Your task to perform on an android device: Turn off the flashlight Image 0: 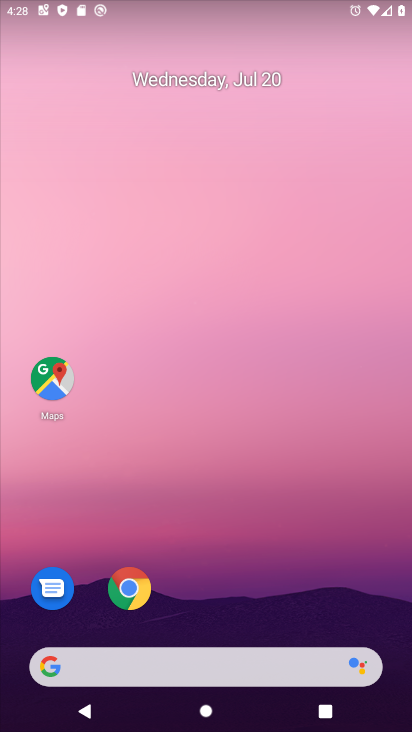
Step 0: drag from (266, 586) to (275, 55)
Your task to perform on an android device: Turn off the flashlight Image 1: 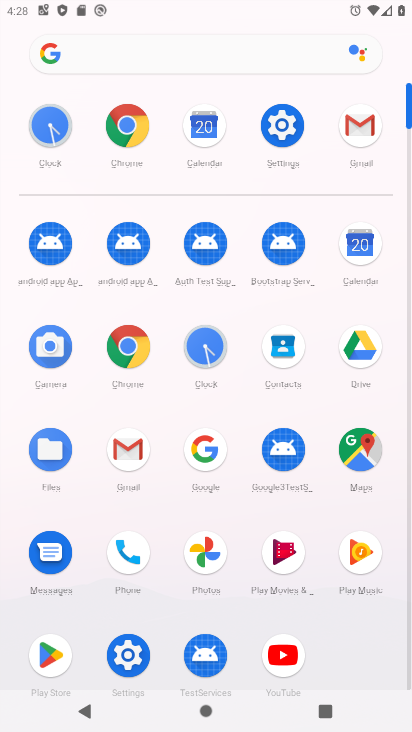
Step 1: click (295, 114)
Your task to perform on an android device: Turn off the flashlight Image 2: 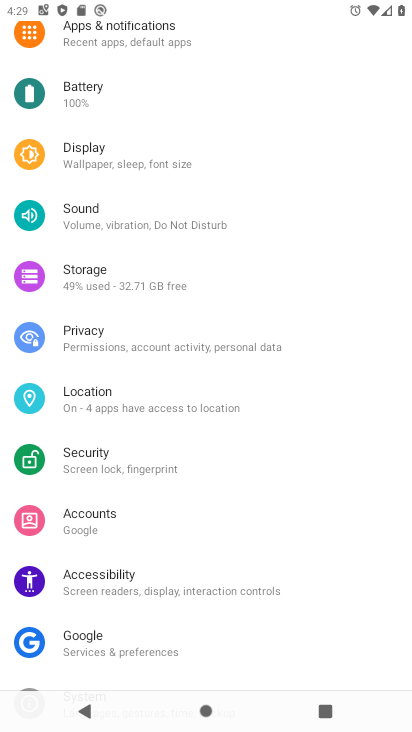
Step 2: click (129, 168)
Your task to perform on an android device: Turn off the flashlight Image 3: 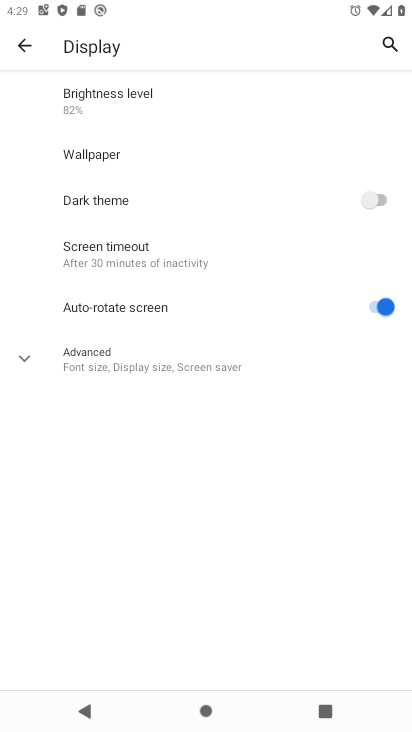
Step 3: click (102, 251)
Your task to perform on an android device: Turn off the flashlight Image 4: 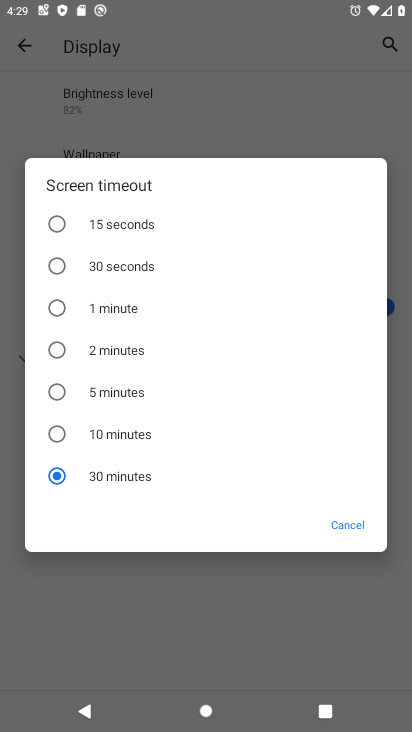
Step 4: task complete